Your task to perform on an android device: Open Youtube and go to the subscriptions tab Image 0: 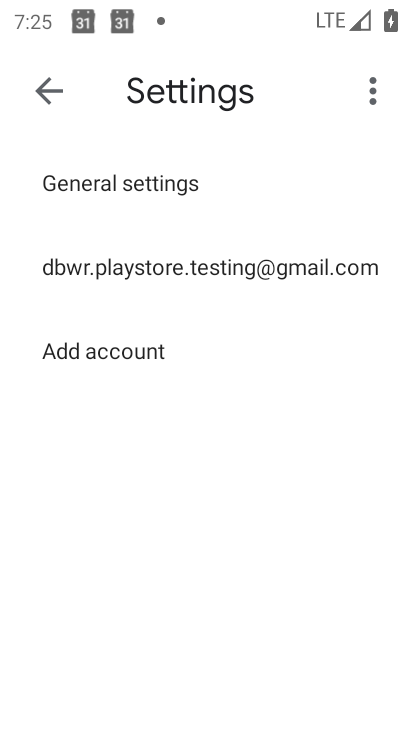
Step 0: press home button
Your task to perform on an android device: Open Youtube and go to the subscriptions tab Image 1: 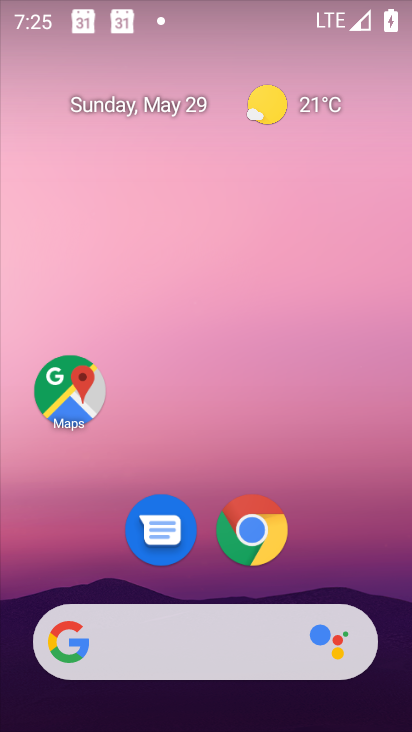
Step 1: drag from (260, 680) to (161, 77)
Your task to perform on an android device: Open Youtube and go to the subscriptions tab Image 2: 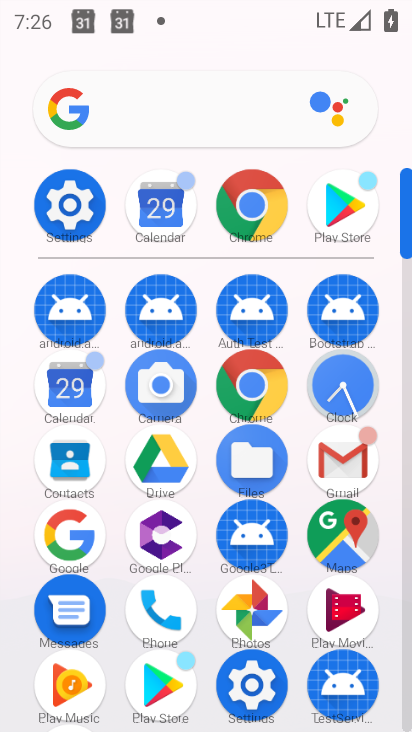
Step 2: drag from (201, 626) to (185, 422)
Your task to perform on an android device: Open Youtube and go to the subscriptions tab Image 3: 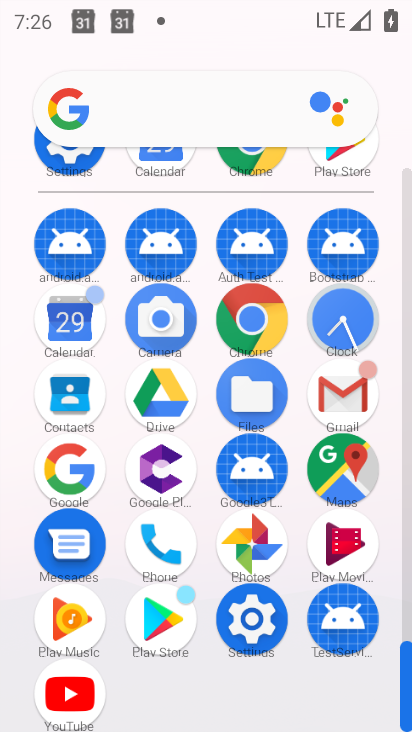
Step 3: click (80, 694)
Your task to perform on an android device: Open Youtube and go to the subscriptions tab Image 4: 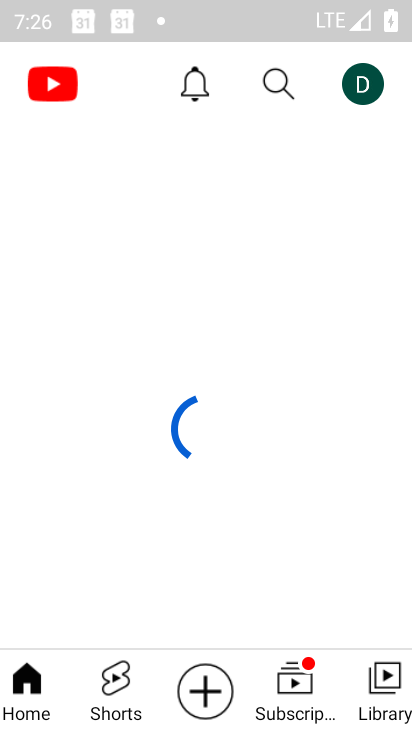
Step 4: click (276, 699)
Your task to perform on an android device: Open Youtube and go to the subscriptions tab Image 5: 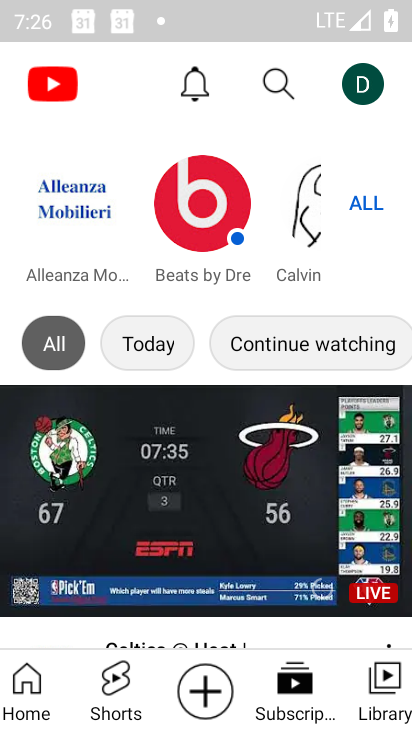
Step 5: task complete